Your task to perform on an android device: turn off priority inbox in the gmail app Image 0: 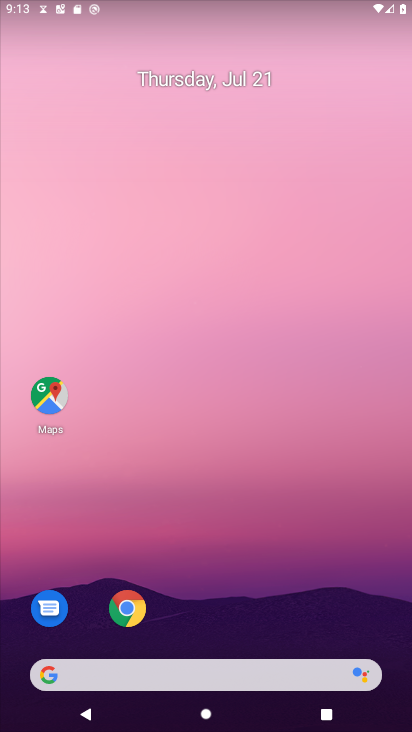
Step 0: drag from (209, 564) to (170, 221)
Your task to perform on an android device: turn off priority inbox in the gmail app Image 1: 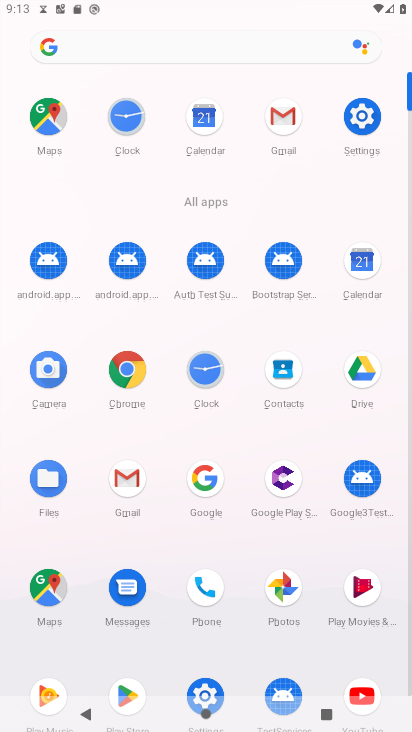
Step 1: click (365, 119)
Your task to perform on an android device: turn off priority inbox in the gmail app Image 2: 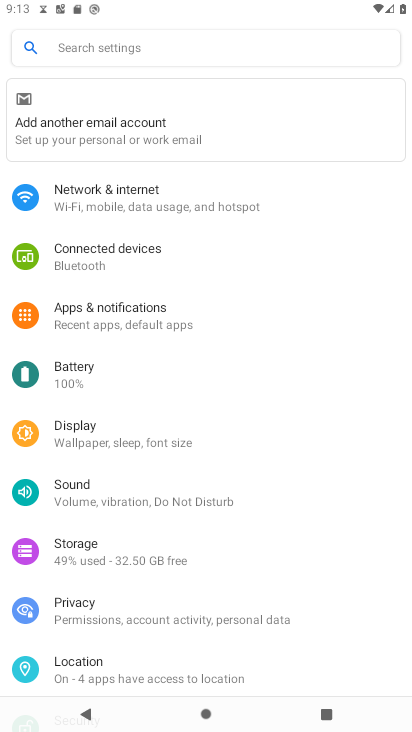
Step 2: drag from (87, 550) to (98, 343)
Your task to perform on an android device: turn off priority inbox in the gmail app Image 3: 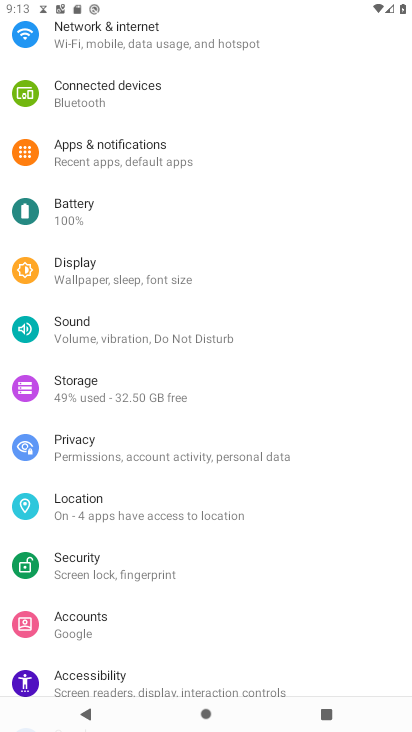
Step 3: press back button
Your task to perform on an android device: turn off priority inbox in the gmail app Image 4: 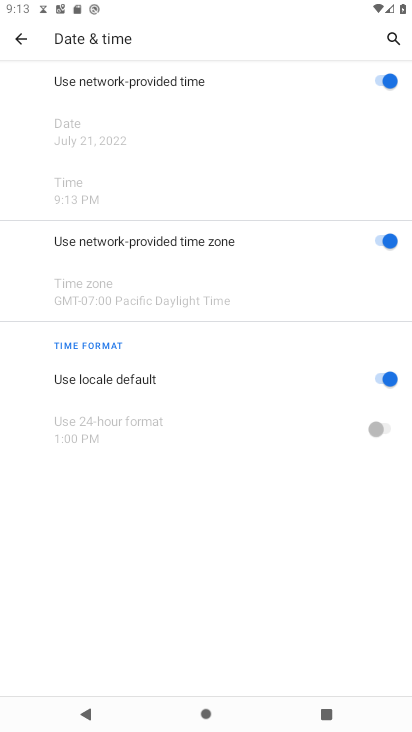
Step 4: press back button
Your task to perform on an android device: turn off priority inbox in the gmail app Image 5: 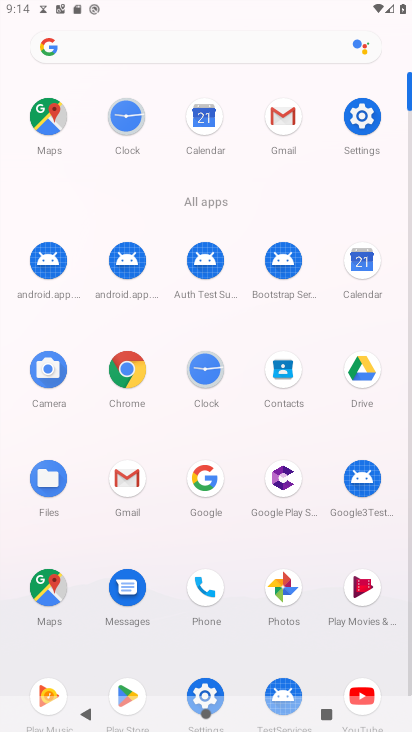
Step 5: click (270, 120)
Your task to perform on an android device: turn off priority inbox in the gmail app Image 6: 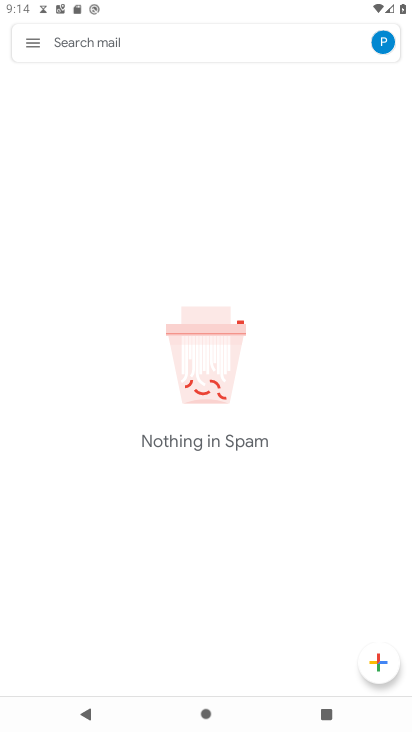
Step 6: click (34, 38)
Your task to perform on an android device: turn off priority inbox in the gmail app Image 7: 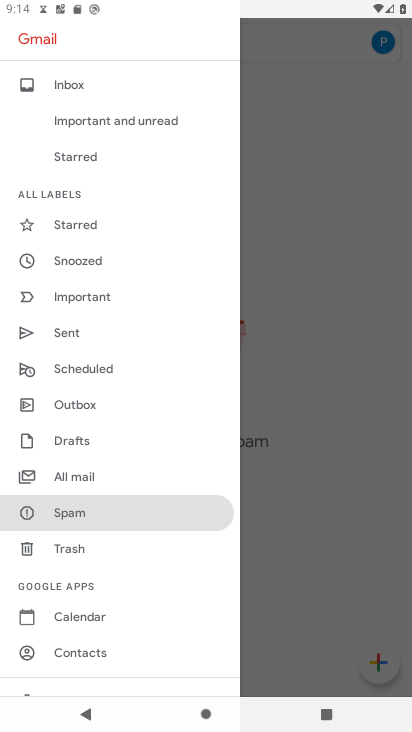
Step 7: drag from (64, 585) to (80, 363)
Your task to perform on an android device: turn off priority inbox in the gmail app Image 8: 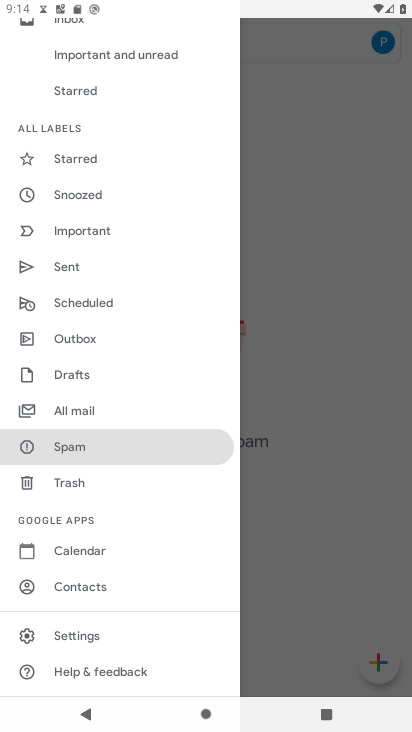
Step 8: click (81, 634)
Your task to perform on an android device: turn off priority inbox in the gmail app Image 9: 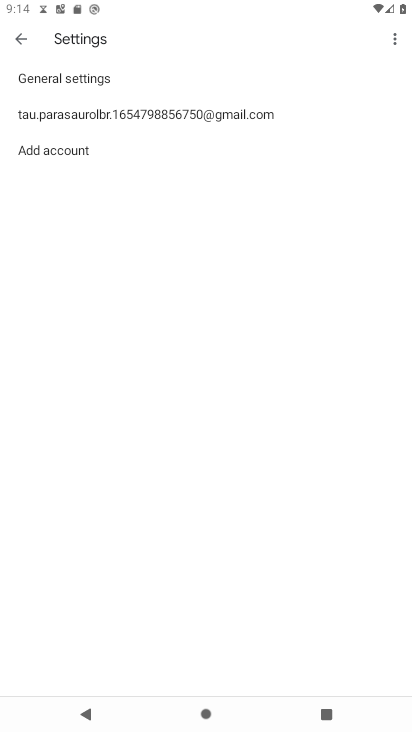
Step 9: click (84, 109)
Your task to perform on an android device: turn off priority inbox in the gmail app Image 10: 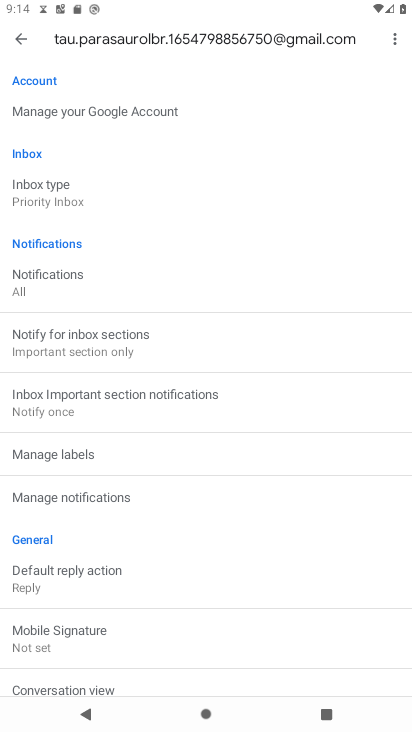
Step 10: click (41, 196)
Your task to perform on an android device: turn off priority inbox in the gmail app Image 11: 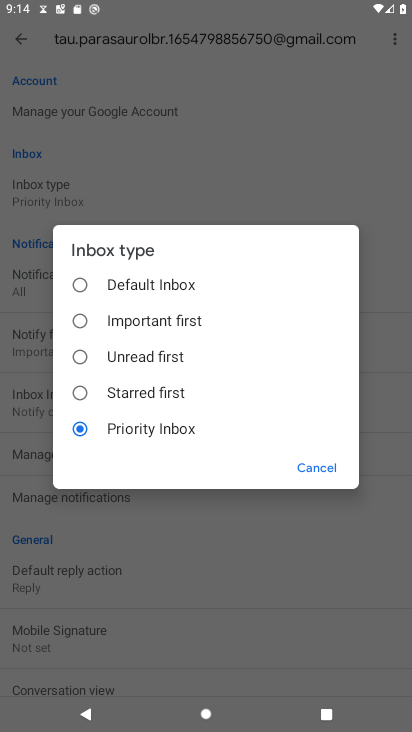
Step 11: click (81, 282)
Your task to perform on an android device: turn off priority inbox in the gmail app Image 12: 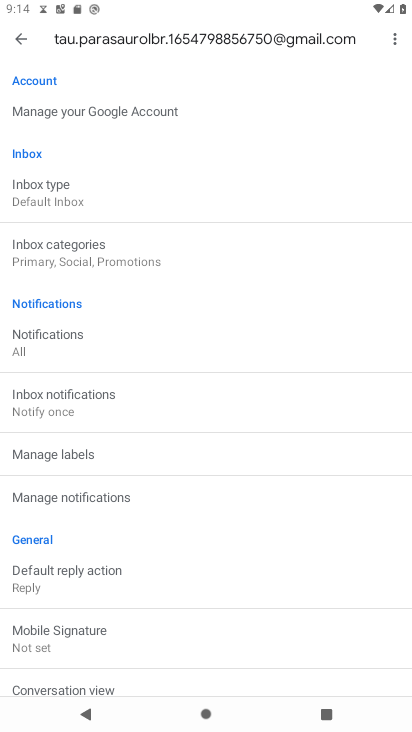
Step 12: task complete